Your task to perform on an android device: turn on notifications settings in the gmail app Image 0: 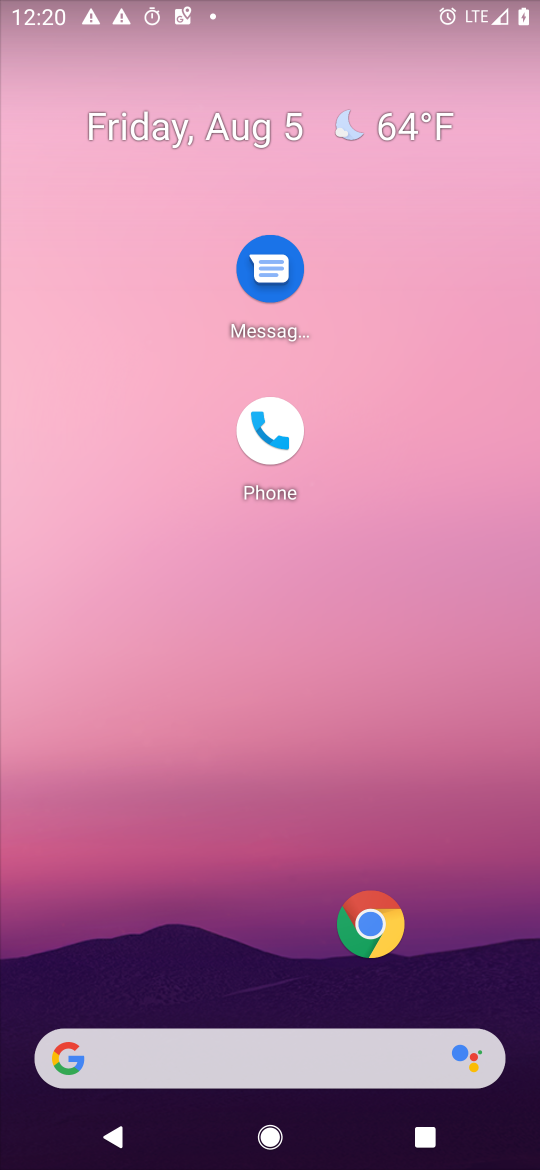
Step 0: drag from (231, 851) to (263, 376)
Your task to perform on an android device: turn on notifications settings in the gmail app Image 1: 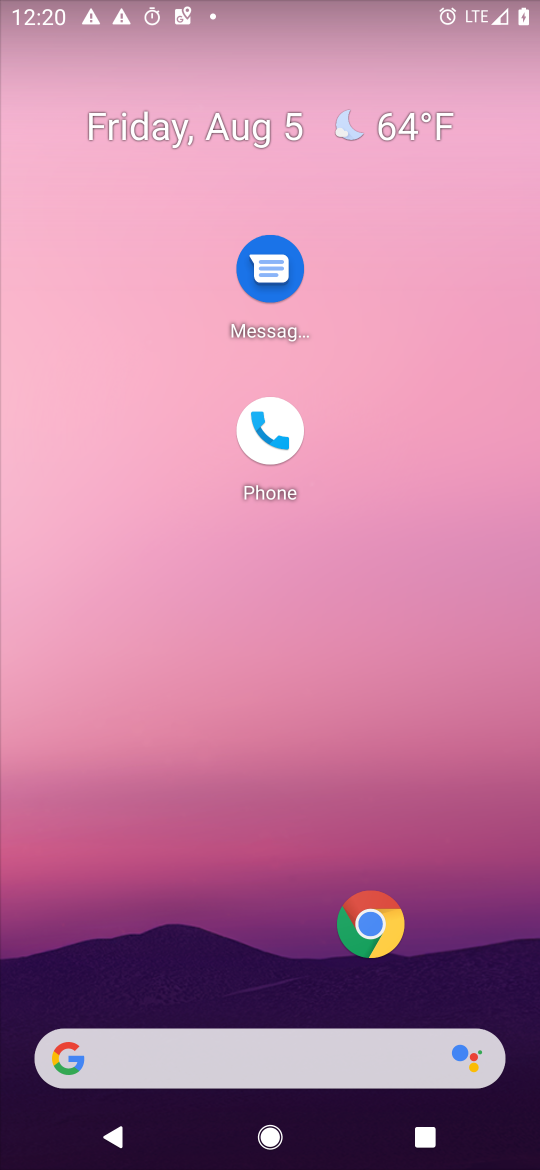
Step 1: drag from (352, 830) to (309, 177)
Your task to perform on an android device: turn on notifications settings in the gmail app Image 2: 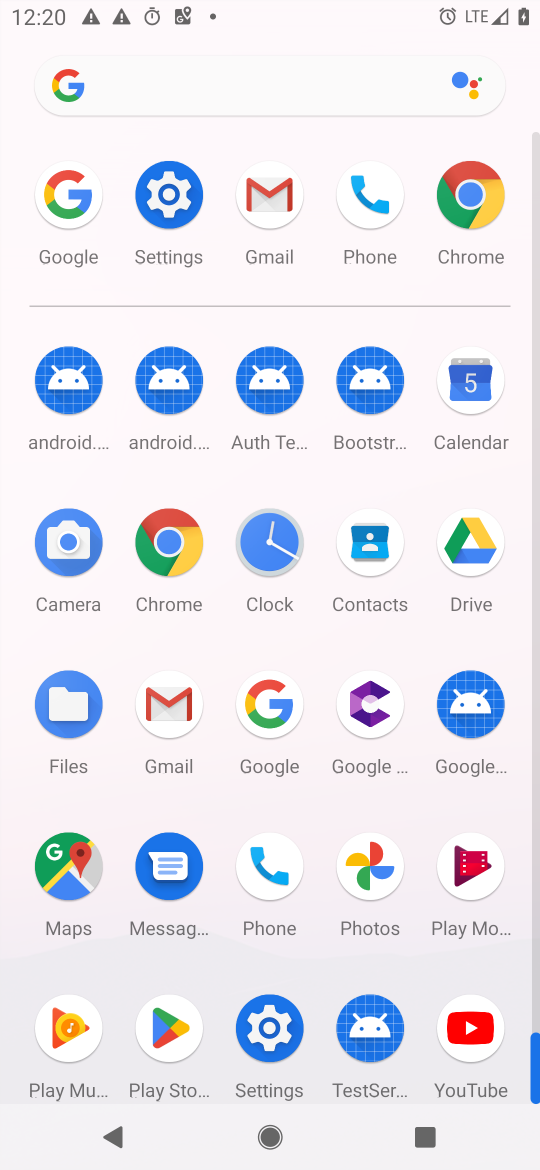
Step 2: click (168, 693)
Your task to perform on an android device: turn on notifications settings in the gmail app Image 3: 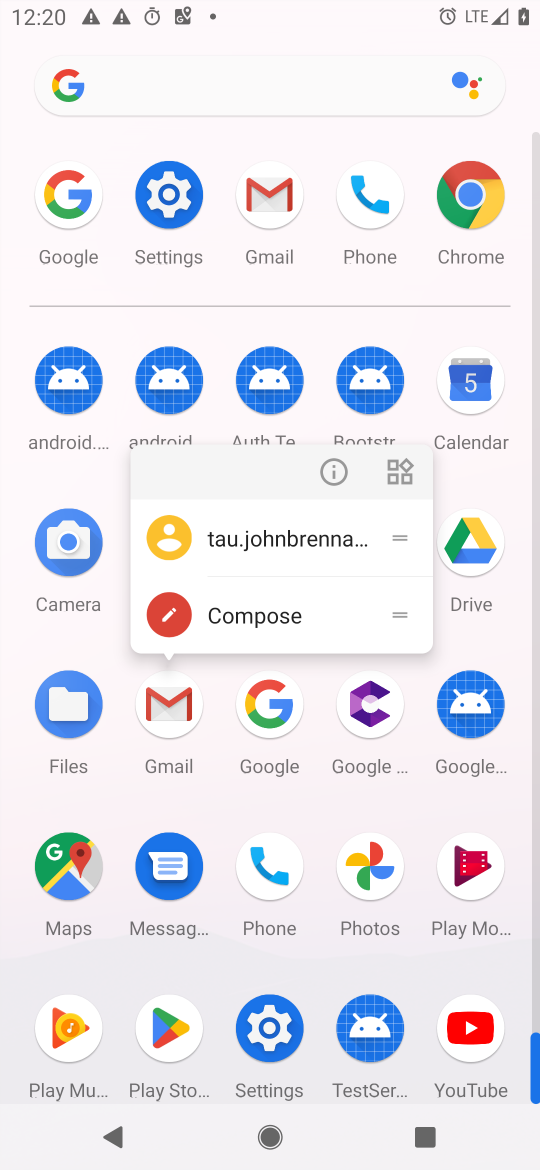
Step 3: click (336, 476)
Your task to perform on an android device: turn on notifications settings in the gmail app Image 4: 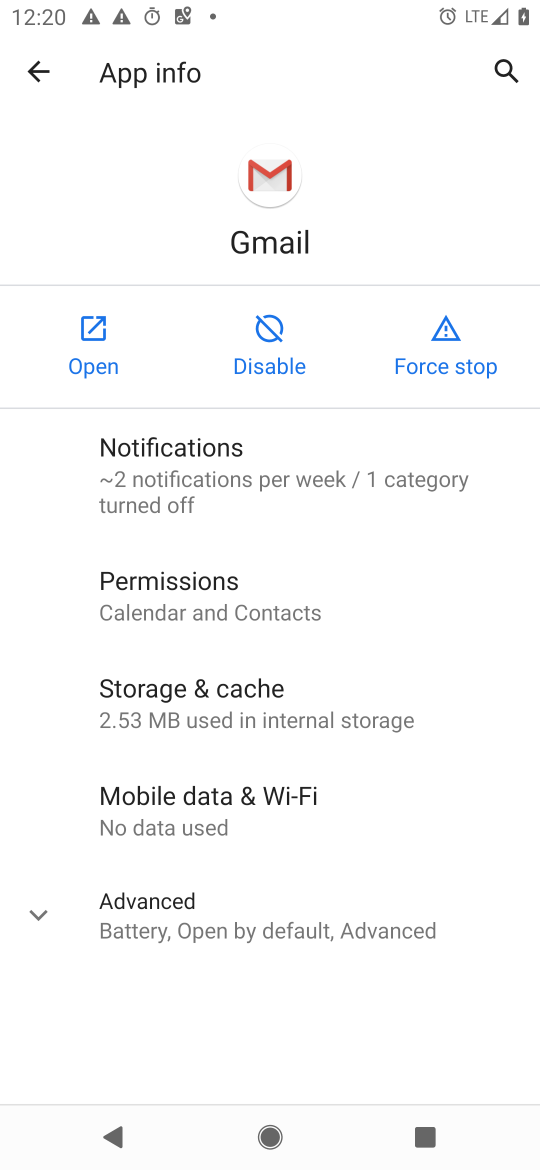
Step 4: click (89, 338)
Your task to perform on an android device: turn on notifications settings in the gmail app Image 5: 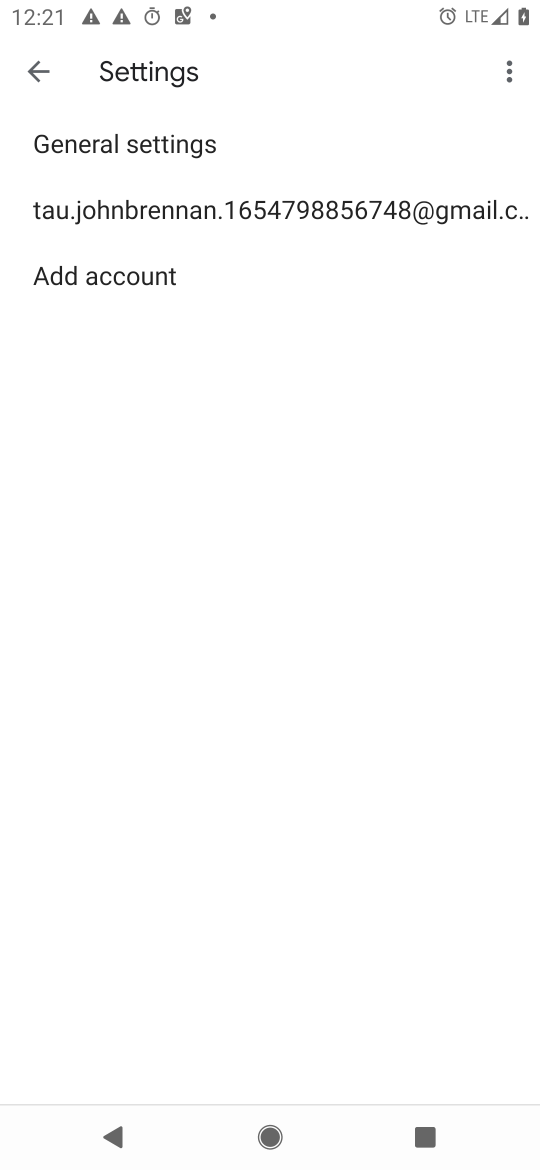
Step 5: click (281, 198)
Your task to perform on an android device: turn on notifications settings in the gmail app Image 6: 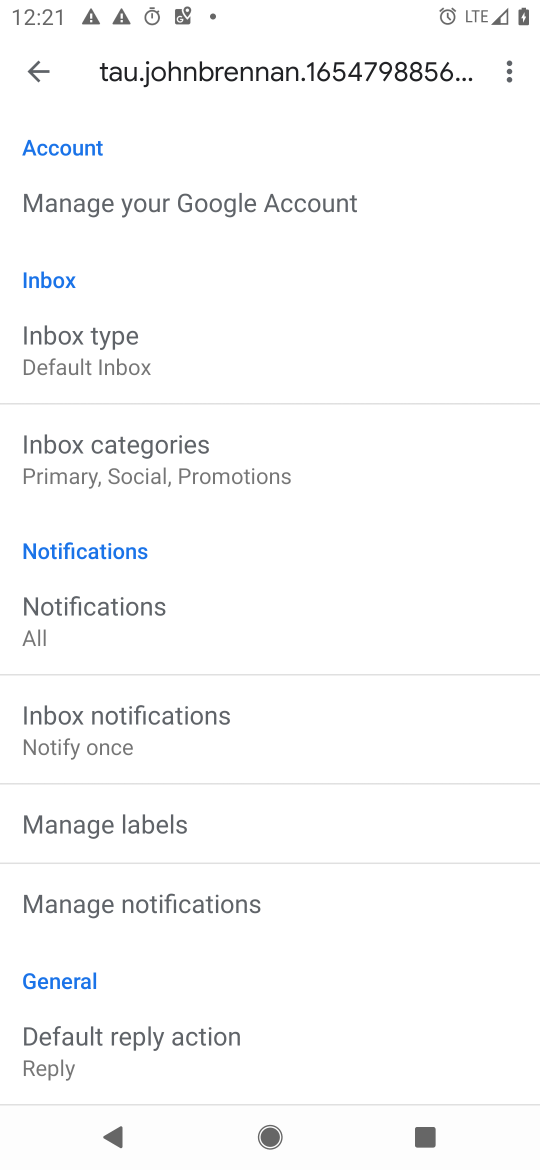
Step 6: drag from (167, 923) to (178, 319)
Your task to perform on an android device: turn on notifications settings in the gmail app Image 7: 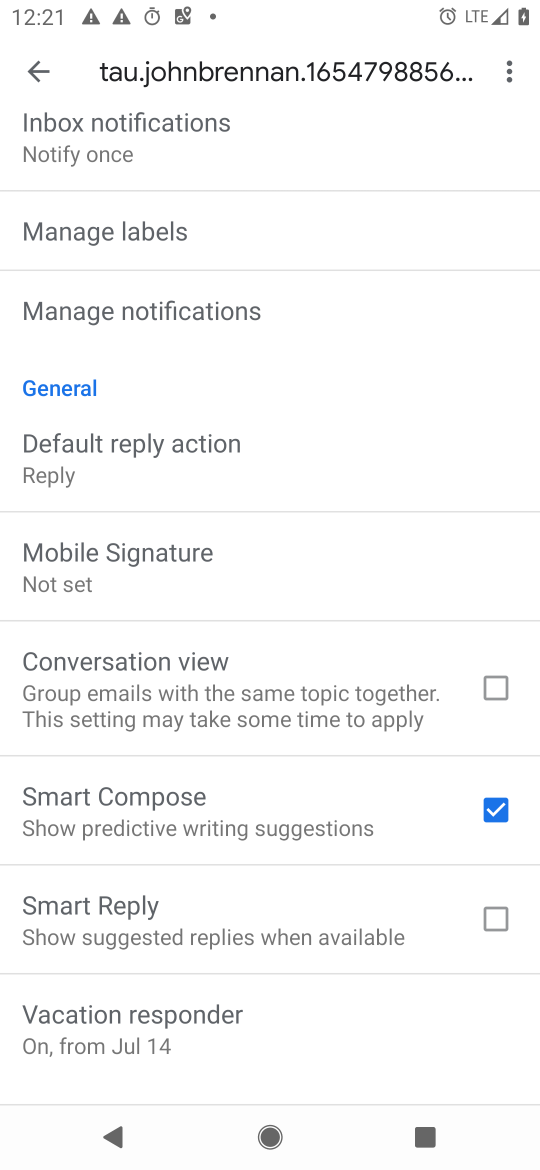
Step 7: drag from (219, 814) to (253, 432)
Your task to perform on an android device: turn on notifications settings in the gmail app Image 8: 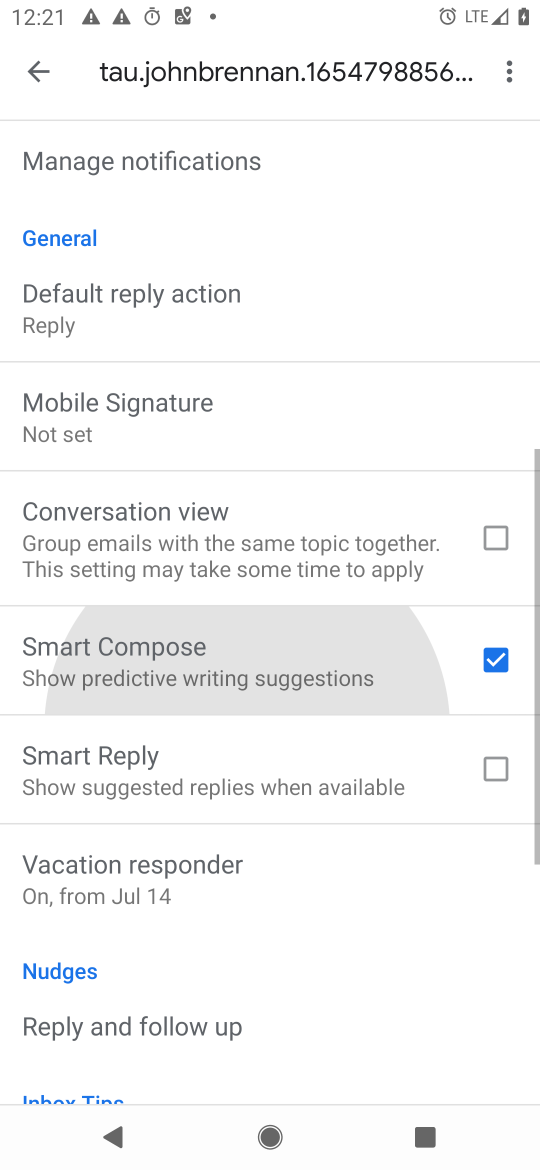
Step 8: drag from (231, 497) to (239, 975)
Your task to perform on an android device: turn on notifications settings in the gmail app Image 9: 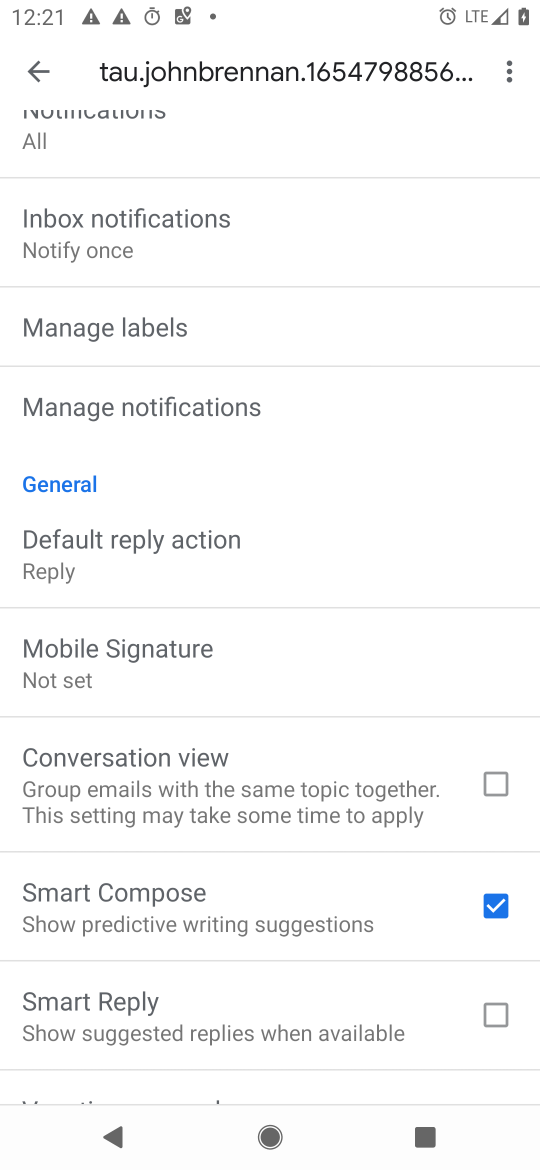
Step 9: drag from (233, 869) to (345, 511)
Your task to perform on an android device: turn on notifications settings in the gmail app Image 10: 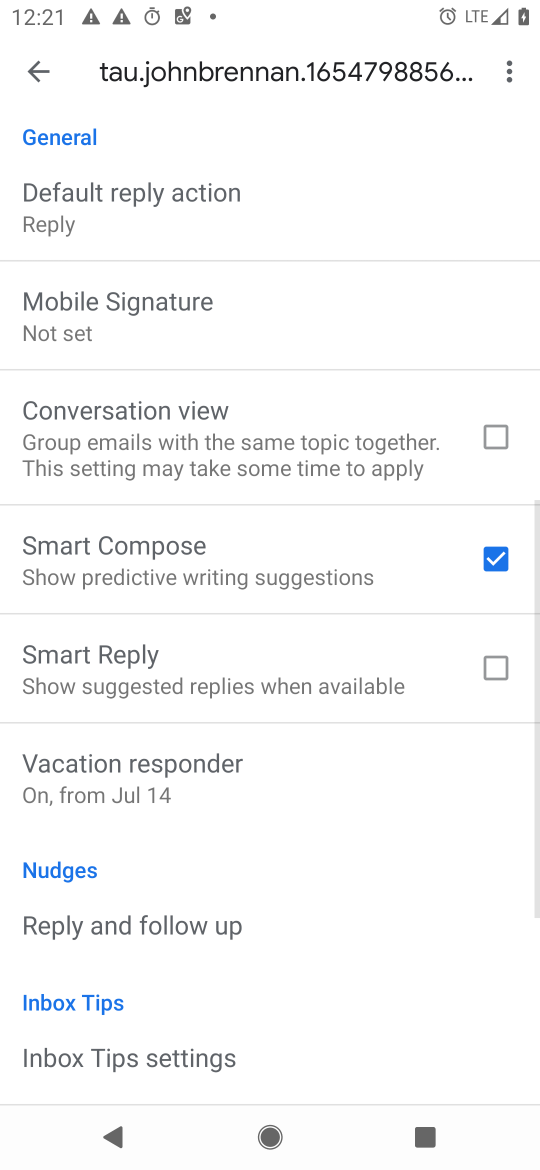
Step 10: drag from (252, 388) to (390, 1155)
Your task to perform on an android device: turn on notifications settings in the gmail app Image 11: 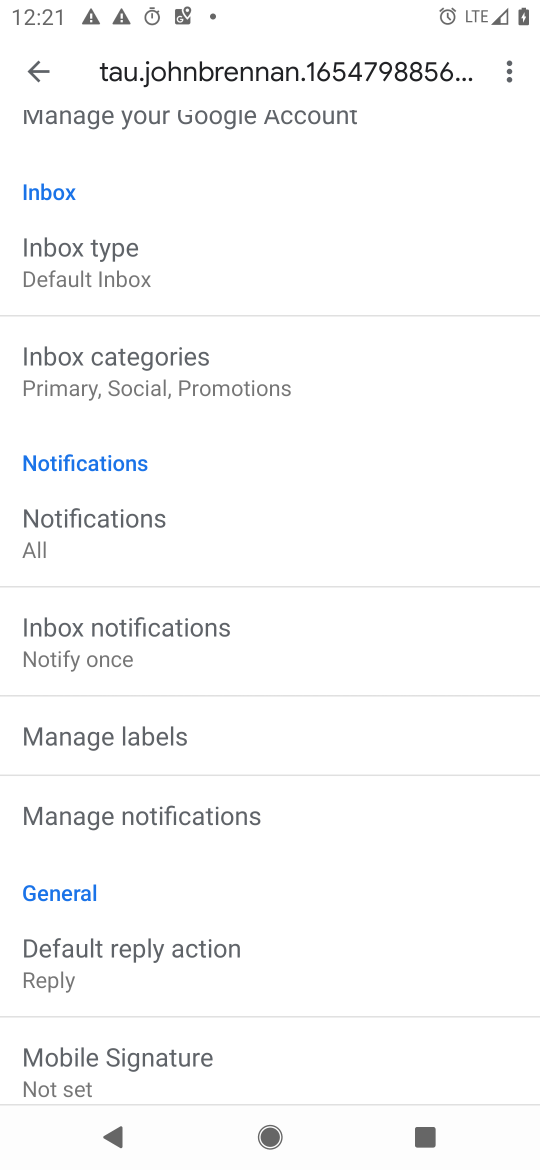
Step 11: drag from (354, 916) to (347, 400)
Your task to perform on an android device: turn on notifications settings in the gmail app Image 12: 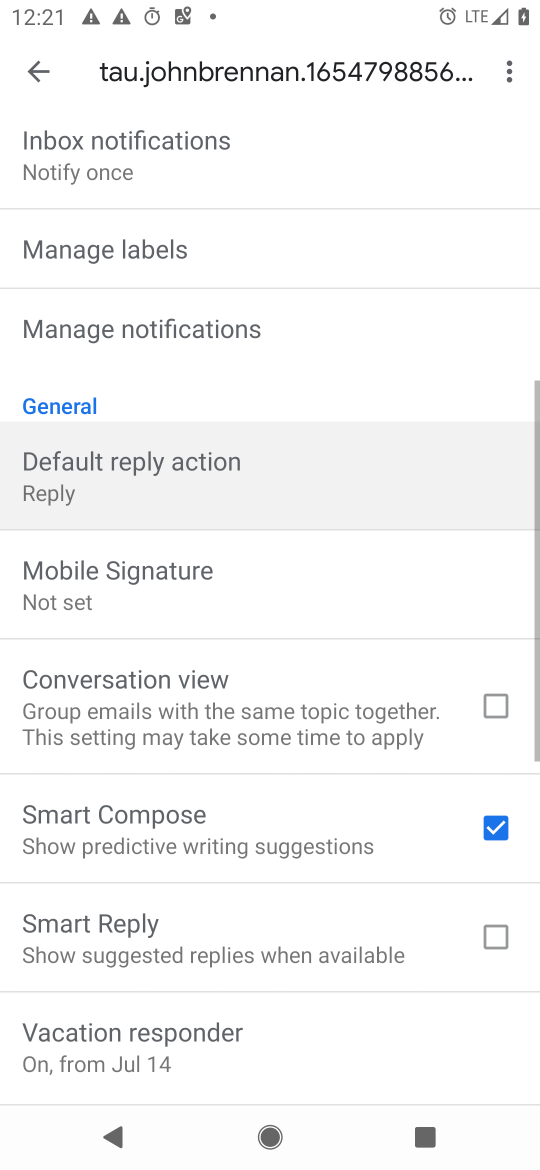
Step 12: drag from (355, 366) to (309, 1155)
Your task to perform on an android device: turn on notifications settings in the gmail app Image 13: 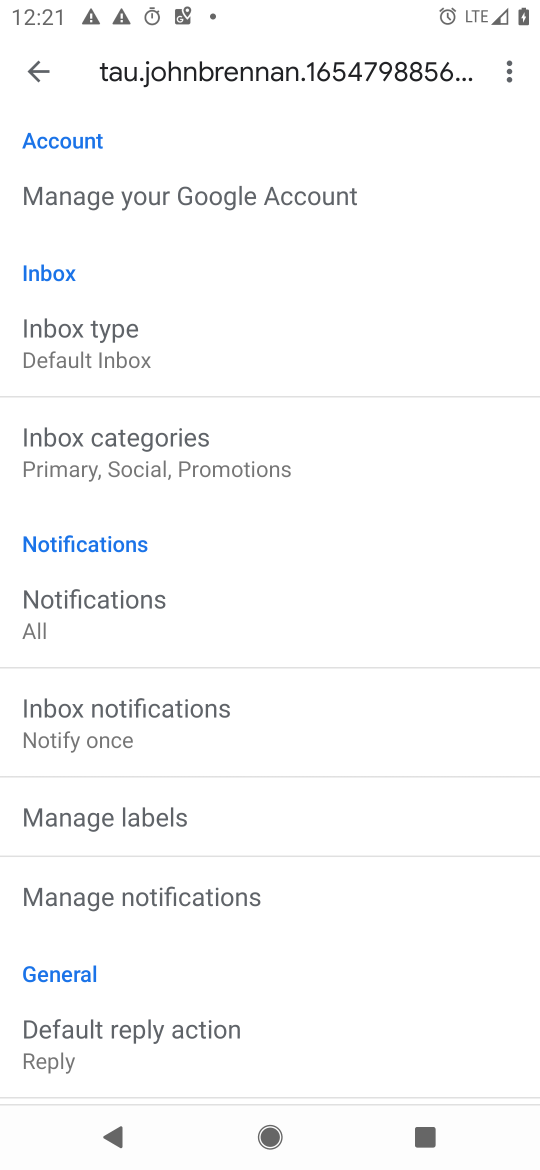
Step 13: click (155, 897)
Your task to perform on an android device: turn on notifications settings in the gmail app Image 14: 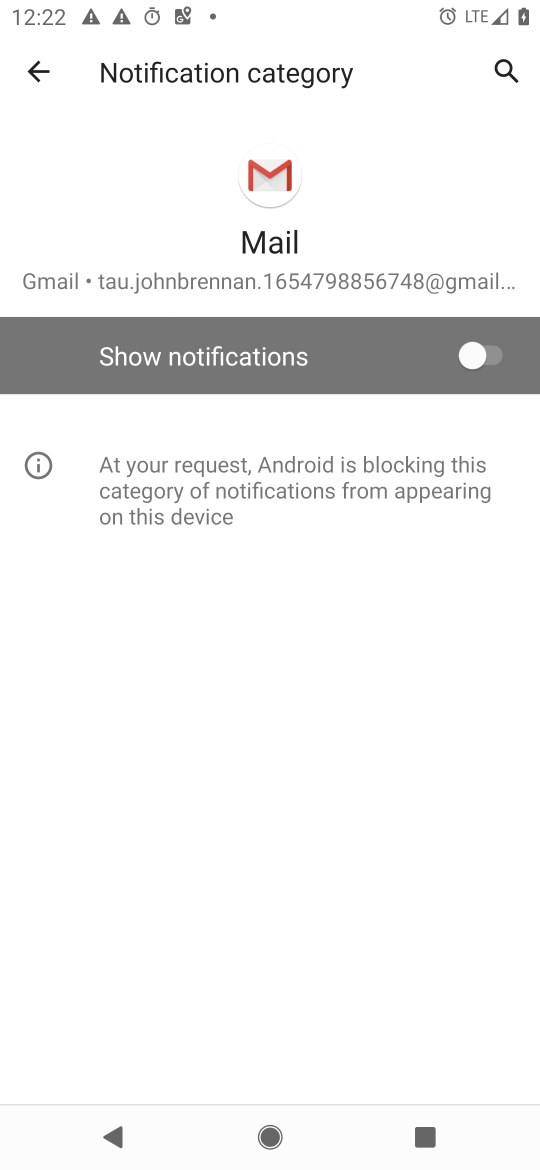
Step 14: drag from (344, 816) to (345, 342)
Your task to perform on an android device: turn on notifications settings in the gmail app Image 15: 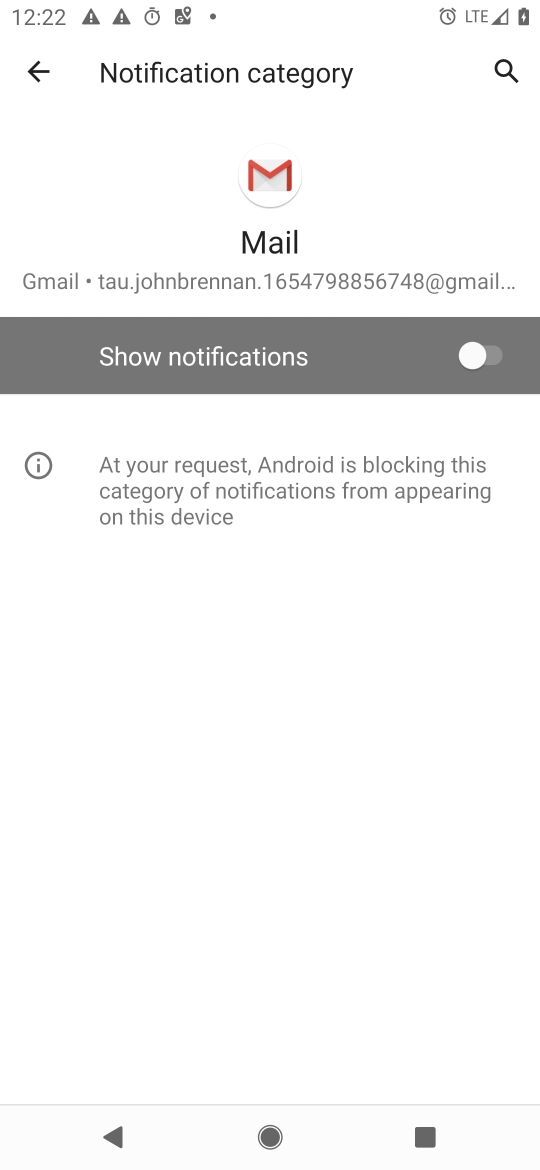
Step 15: click (480, 363)
Your task to perform on an android device: turn on notifications settings in the gmail app Image 16: 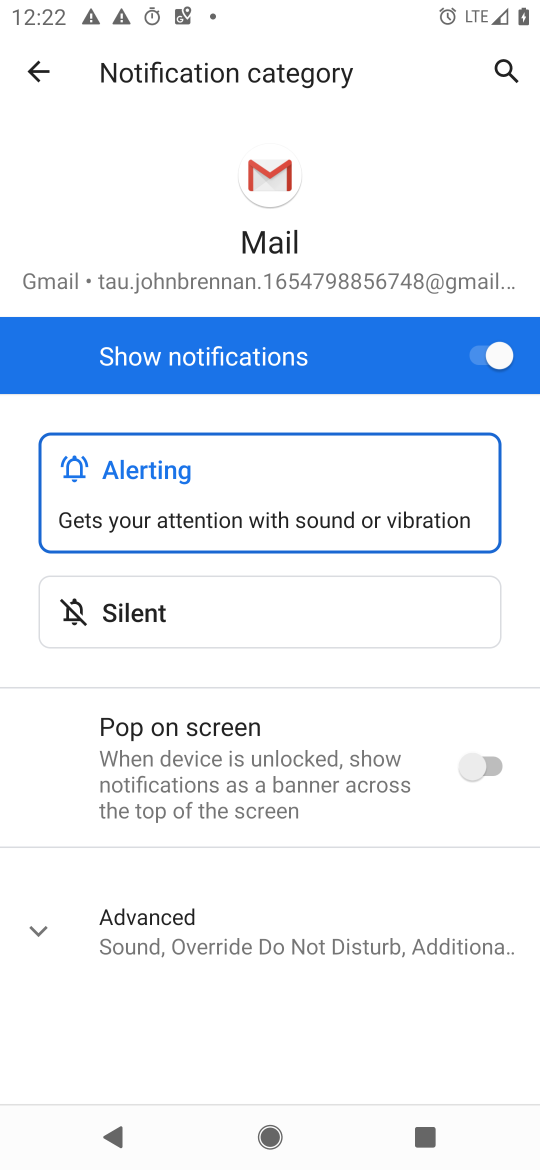
Step 16: task complete